Your task to perform on an android device: When is my next meeting? Image 0: 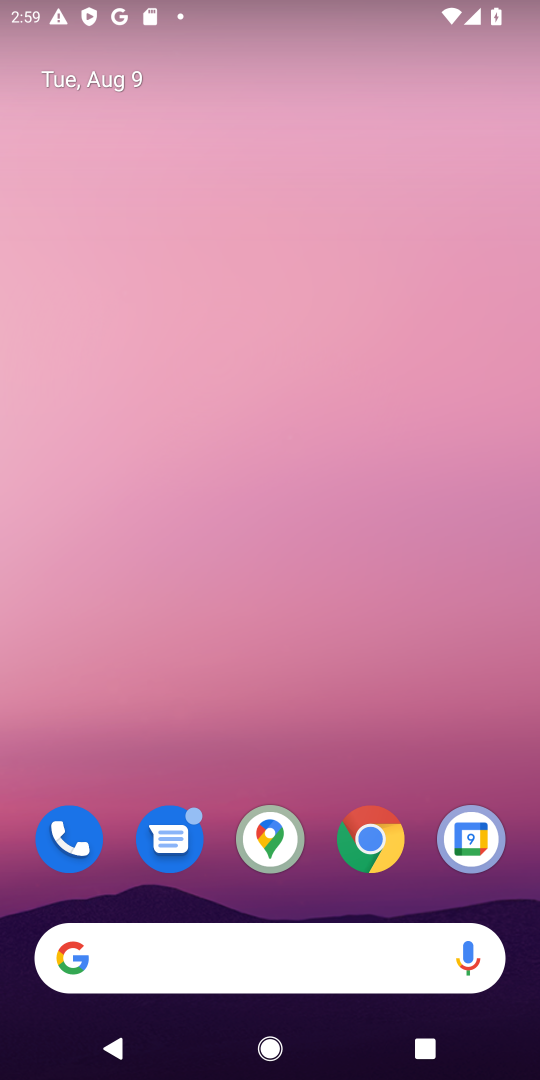
Step 0: press home button
Your task to perform on an android device: When is my next meeting? Image 1: 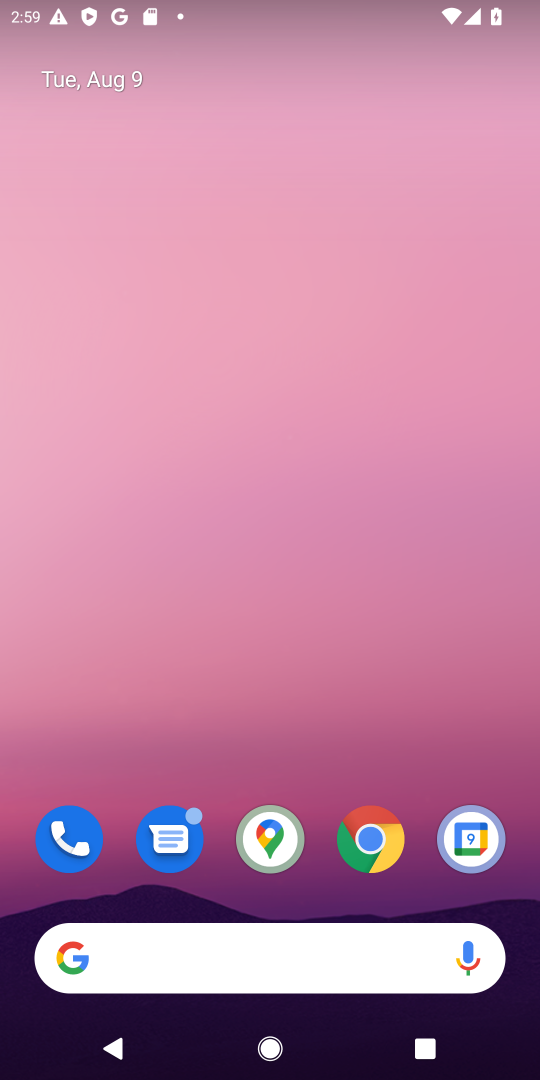
Step 1: drag from (367, 750) to (314, 210)
Your task to perform on an android device: When is my next meeting? Image 2: 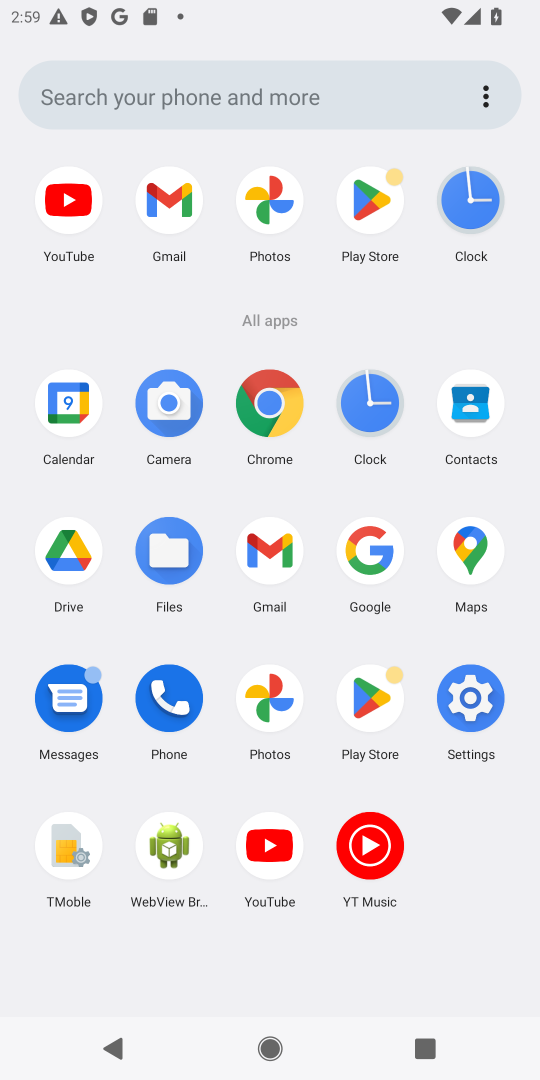
Step 2: click (76, 396)
Your task to perform on an android device: When is my next meeting? Image 3: 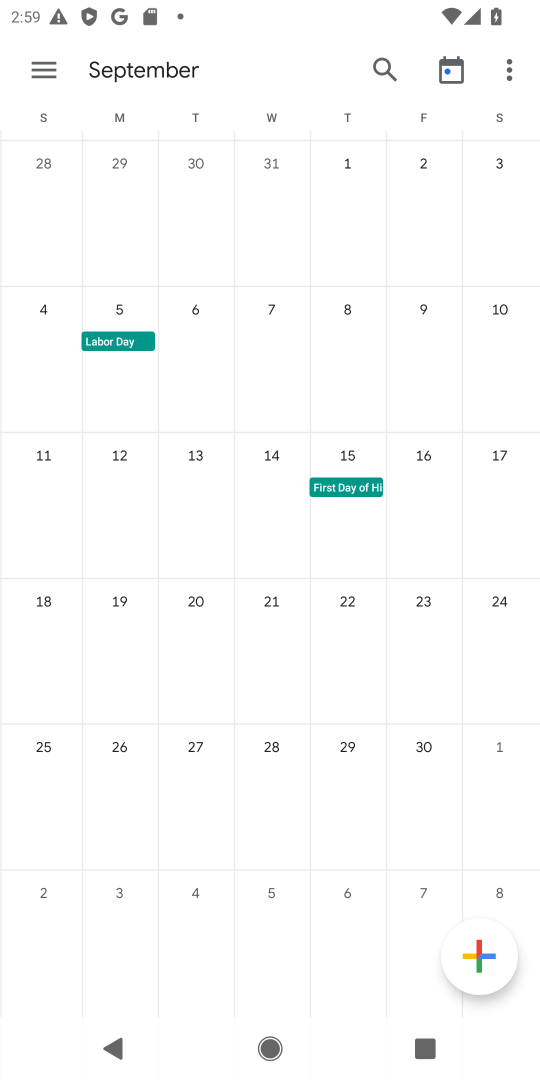
Step 3: click (46, 66)
Your task to perform on an android device: When is my next meeting? Image 4: 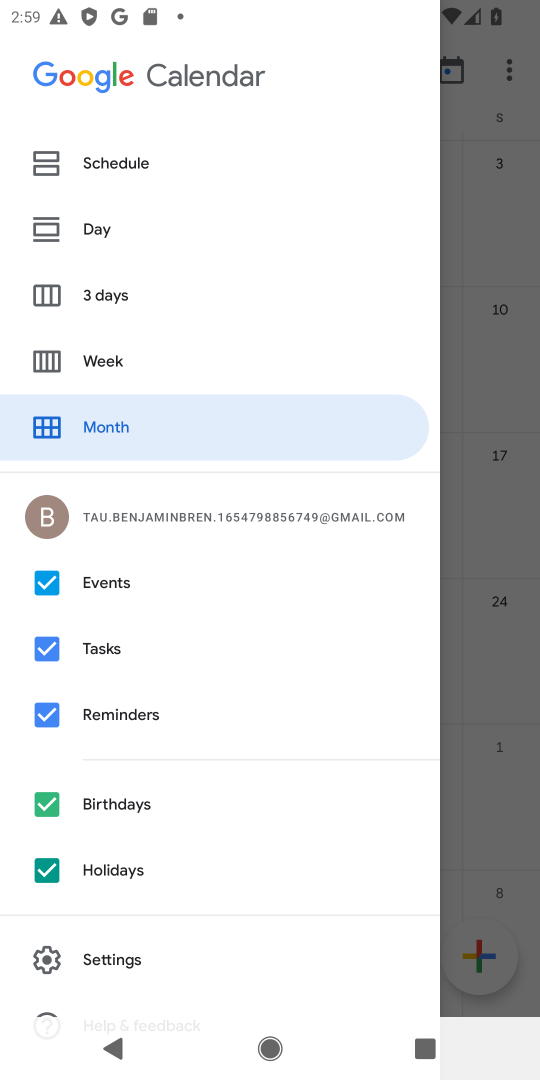
Step 4: click (113, 153)
Your task to perform on an android device: When is my next meeting? Image 5: 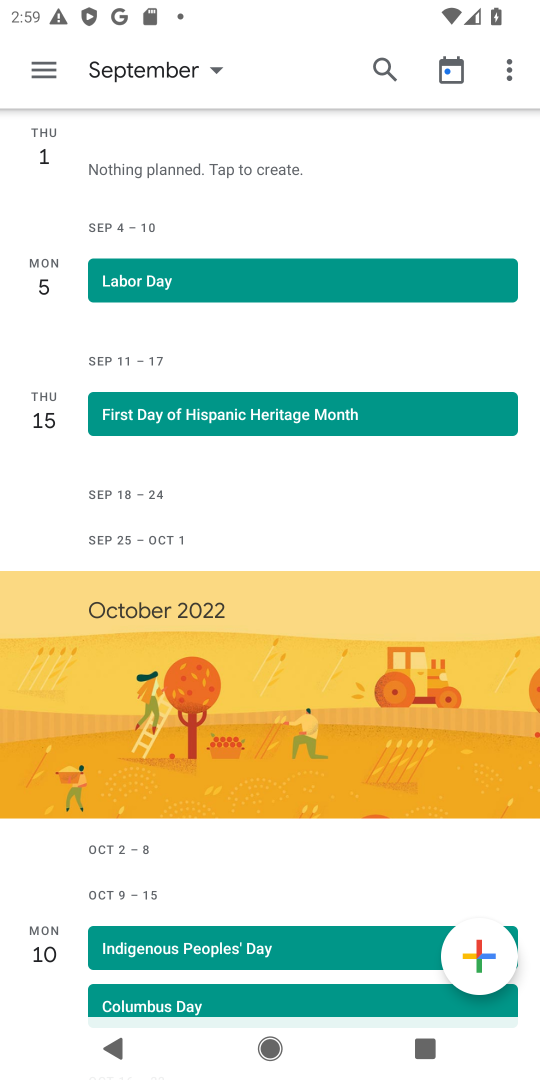
Step 5: task complete